Your task to perform on an android device: check google app version Image 0: 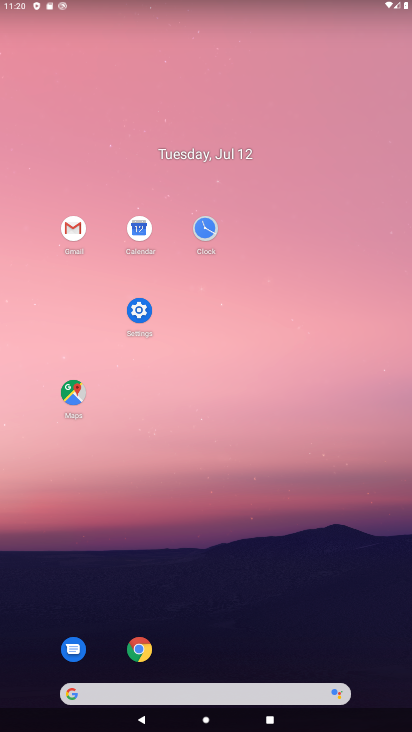
Step 0: drag from (245, 583) to (278, 177)
Your task to perform on an android device: check google app version Image 1: 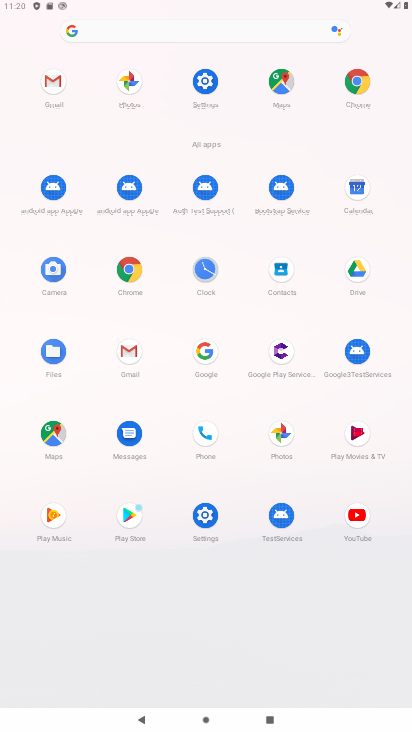
Step 1: drag from (203, 349) to (140, 324)
Your task to perform on an android device: check google app version Image 2: 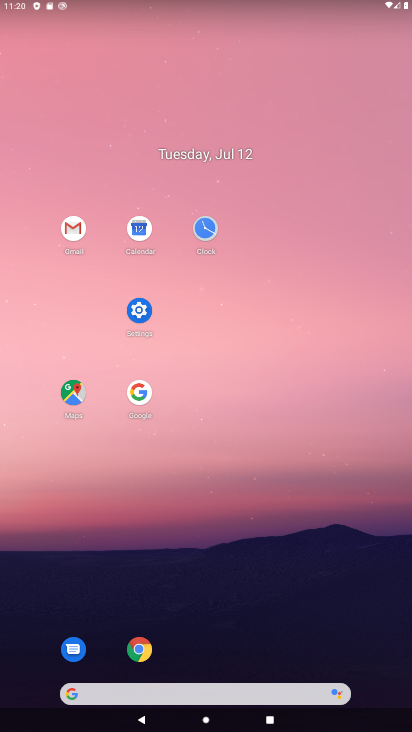
Step 2: click (141, 387)
Your task to perform on an android device: check google app version Image 3: 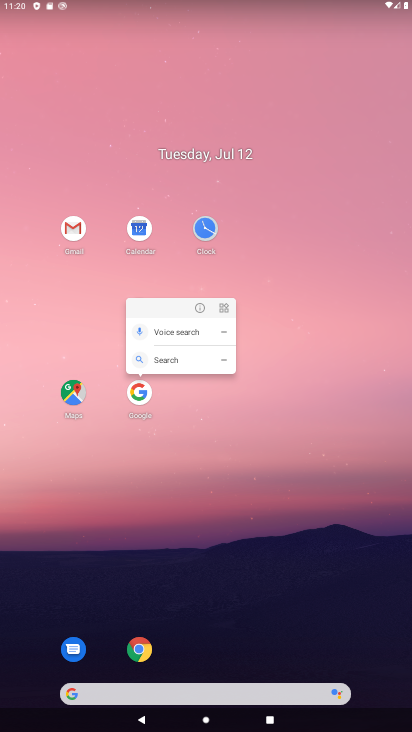
Step 3: click (198, 309)
Your task to perform on an android device: check google app version Image 4: 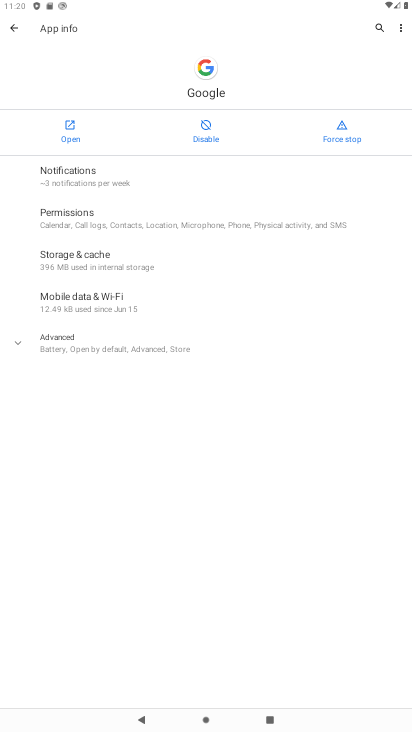
Step 4: click (183, 338)
Your task to perform on an android device: check google app version Image 5: 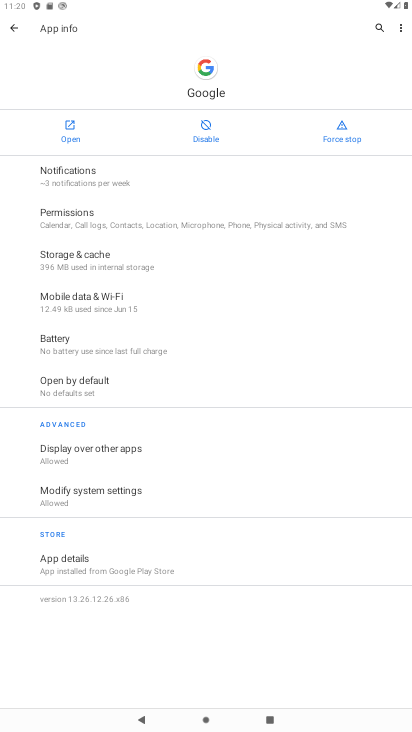
Step 5: task complete